Your task to perform on an android device: When is my next appointment? Image 0: 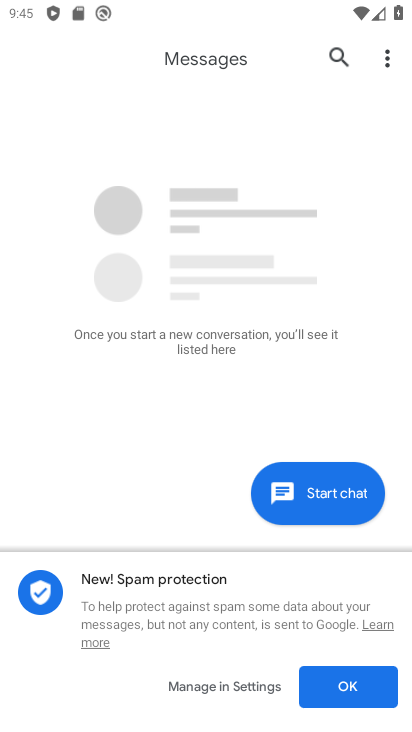
Step 0: press home button
Your task to perform on an android device: When is my next appointment? Image 1: 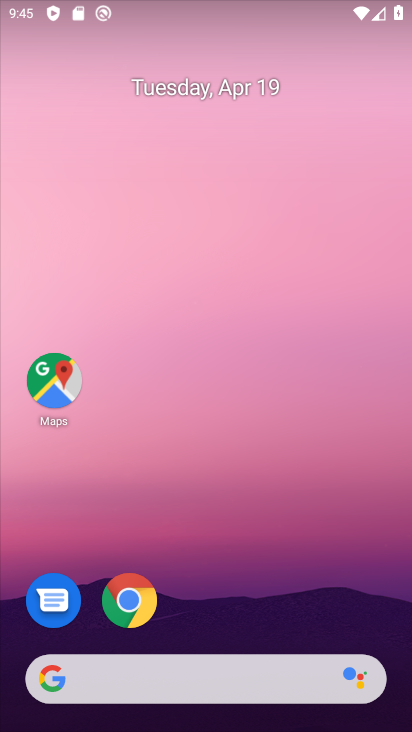
Step 1: drag from (271, 612) to (249, 95)
Your task to perform on an android device: When is my next appointment? Image 2: 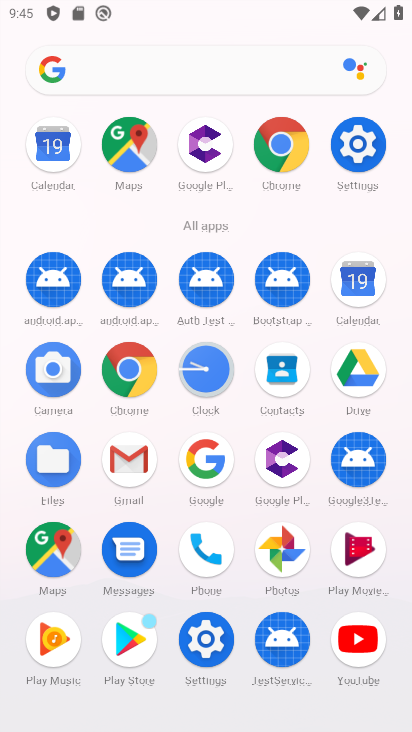
Step 2: click (339, 289)
Your task to perform on an android device: When is my next appointment? Image 3: 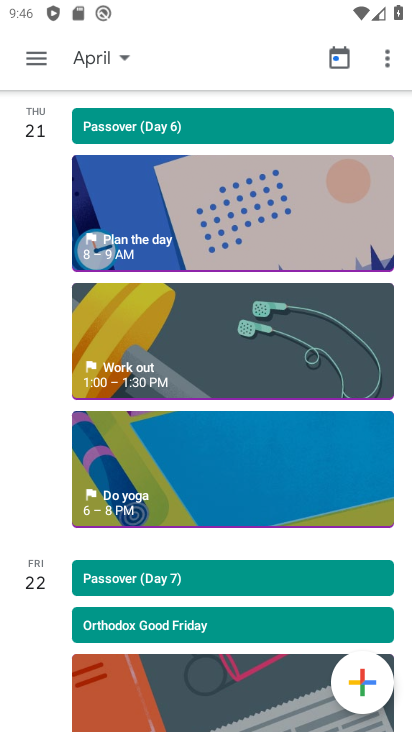
Step 3: task complete